Your task to perform on an android device: show emergency info Image 0: 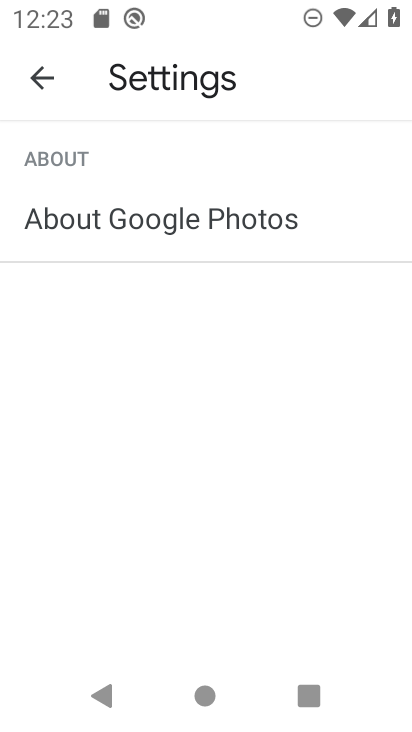
Step 0: press home button
Your task to perform on an android device: show emergency info Image 1: 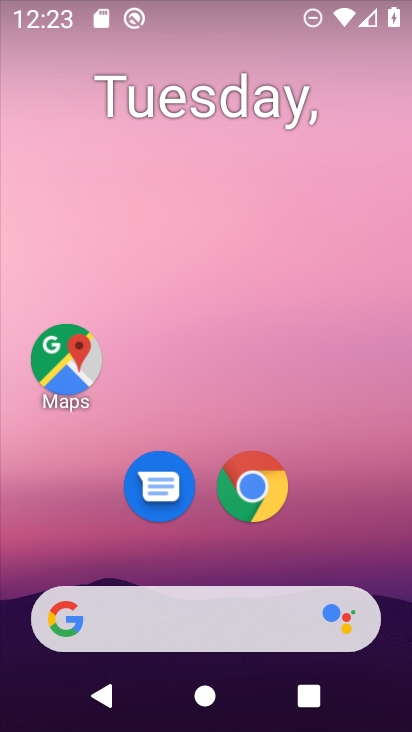
Step 1: drag from (220, 569) to (208, 205)
Your task to perform on an android device: show emergency info Image 2: 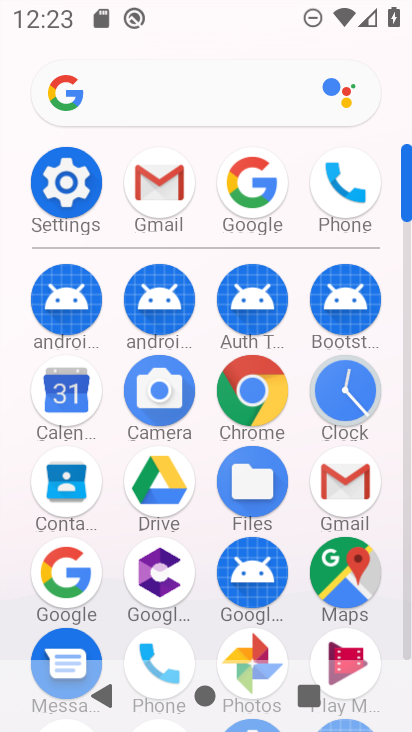
Step 2: drag from (207, 247) to (214, 39)
Your task to perform on an android device: show emergency info Image 3: 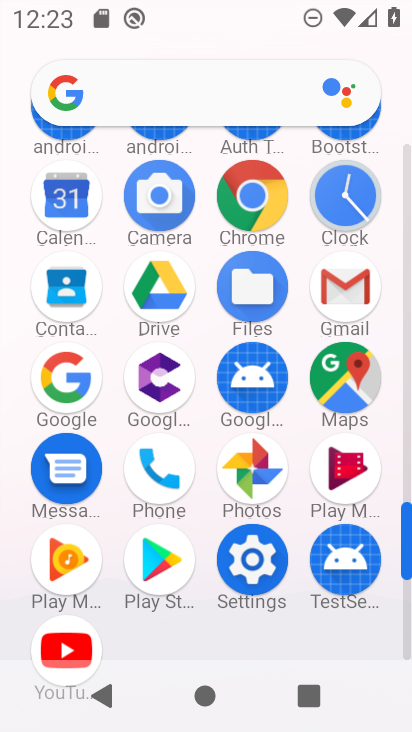
Step 3: click (239, 580)
Your task to perform on an android device: show emergency info Image 4: 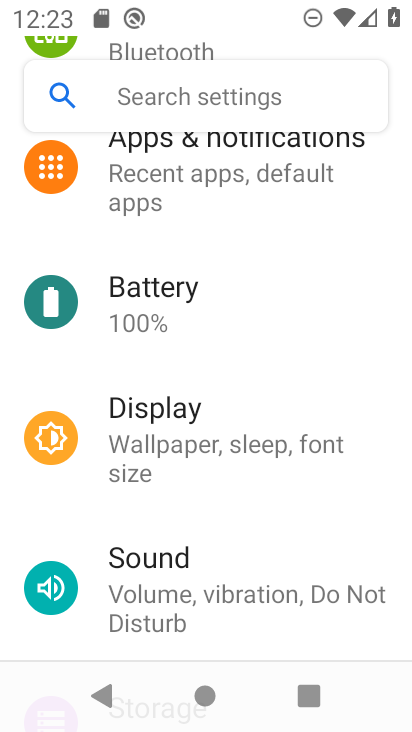
Step 4: drag from (220, 587) to (212, 163)
Your task to perform on an android device: show emergency info Image 5: 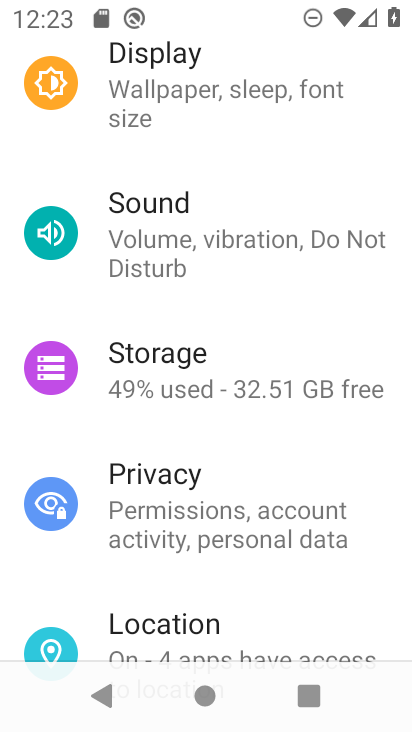
Step 5: drag from (218, 599) to (308, 158)
Your task to perform on an android device: show emergency info Image 6: 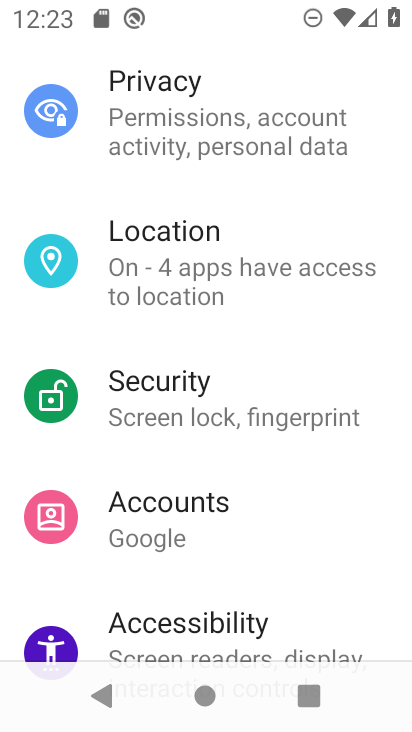
Step 6: drag from (256, 556) to (271, 169)
Your task to perform on an android device: show emergency info Image 7: 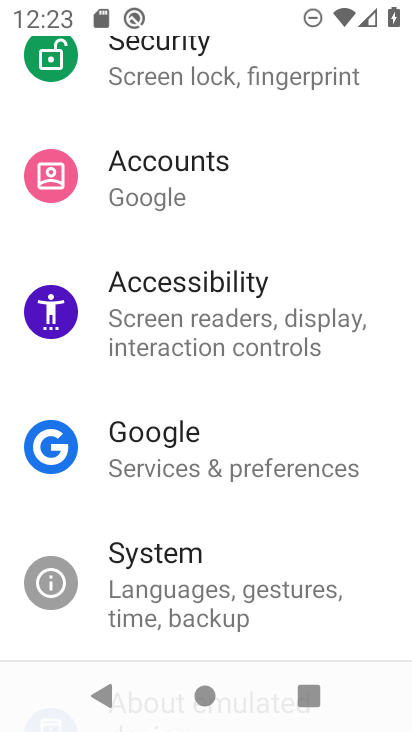
Step 7: drag from (203, 557) to (190, 139)
Your task to perform on an android device: show emergency info Image 8: 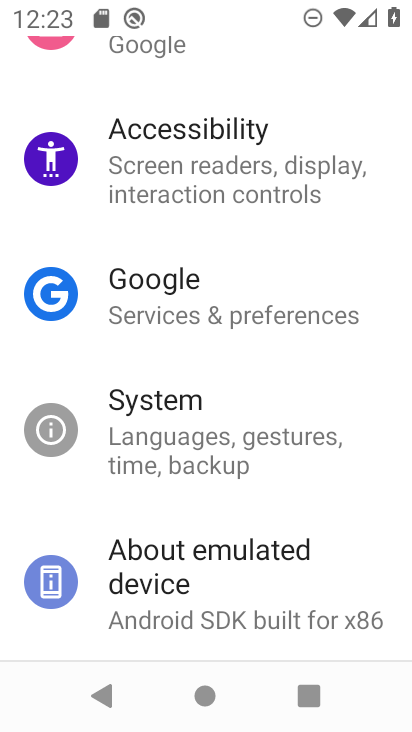
Step 8: click (194, 569)
Your task to perform on an android device: show emergency info Image 9: 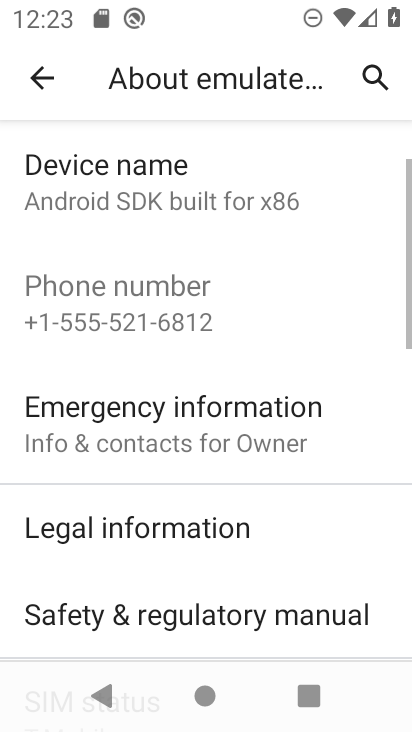
Step 9: click (199, 440)
Your task to perform on an android device: show emergency info Image 10: 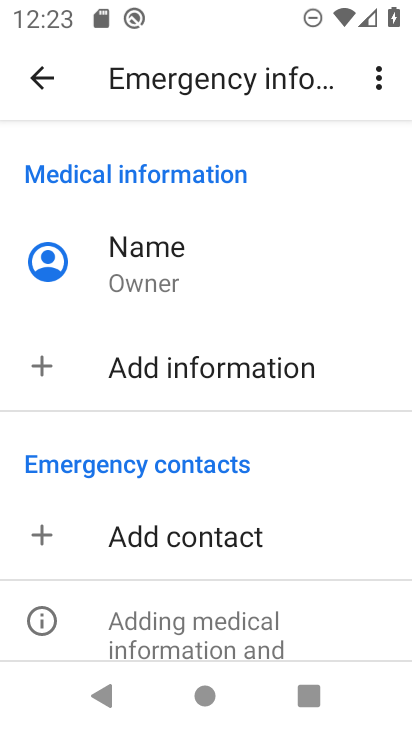
Step 10: task complete